Your task to perform on an android device: turn vacation reply on in the gmail app Image 0: 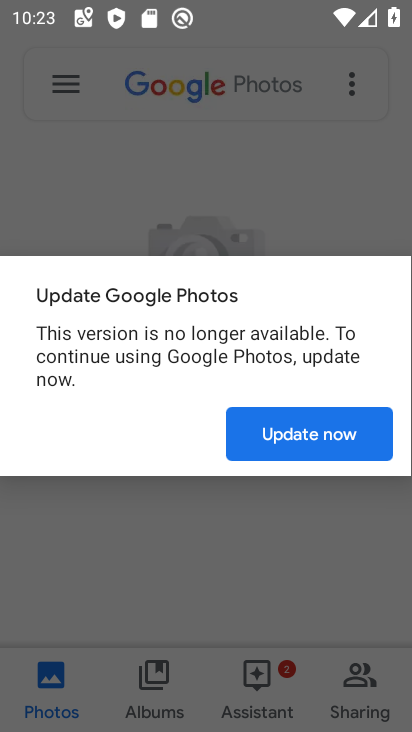
Step 0: press back button
Your task to perform on an android device: turn vacation reply on in the gmail app Image 1: 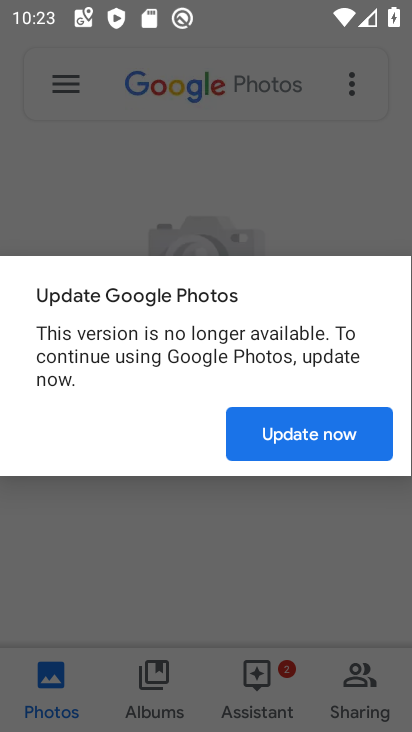
Step 1: press home button
Your task to perform on an android device: turn vacation reply on in the gmail app Image 2: 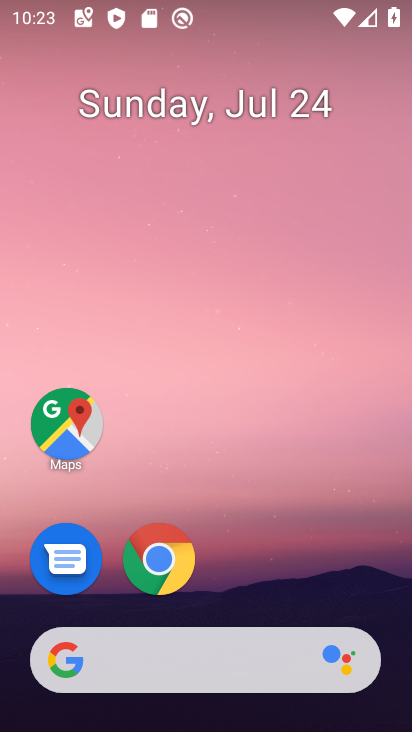
Step 2: drag from (252, 582) to (351, 4)
Your task to perform on an android device: turn vacation reply on in the gmail app Image 3: 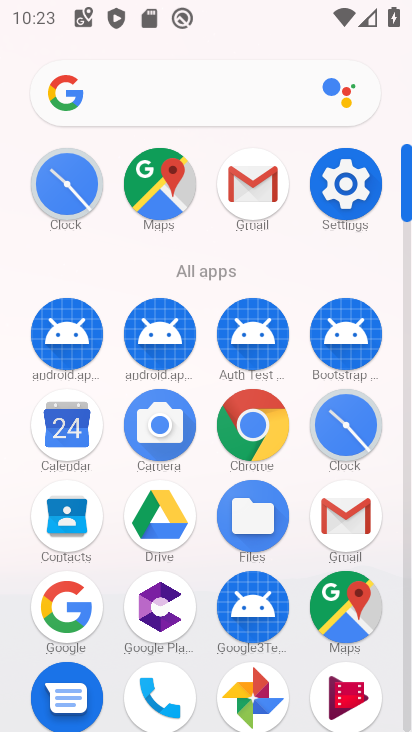
Step 3: click (250, 192)
Your task to perform on an android device: turn vacation reply on in the gmail app Image 4: 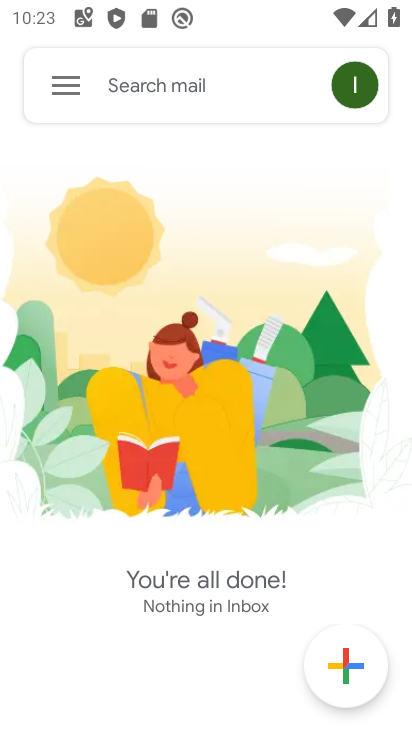
Step 4: click (75, 88)
Your task to perform on an android device: turn vacation reply on in the gmail app Image 5: 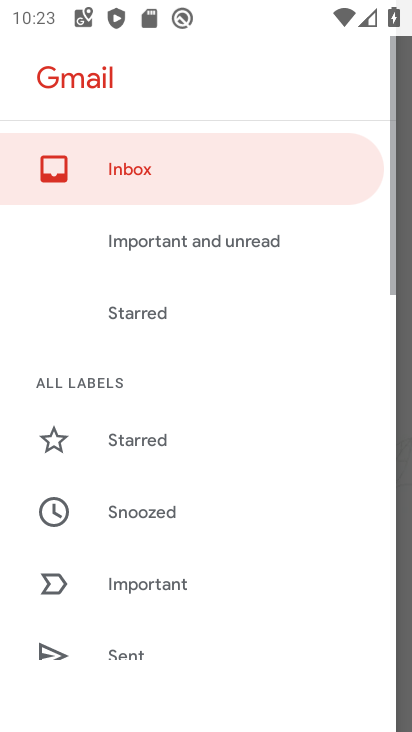
Step 5: drag from (172, 644) to (291, 39)
Your task to perform on an android device: turn vacation reply on in the gmail app Image 6: 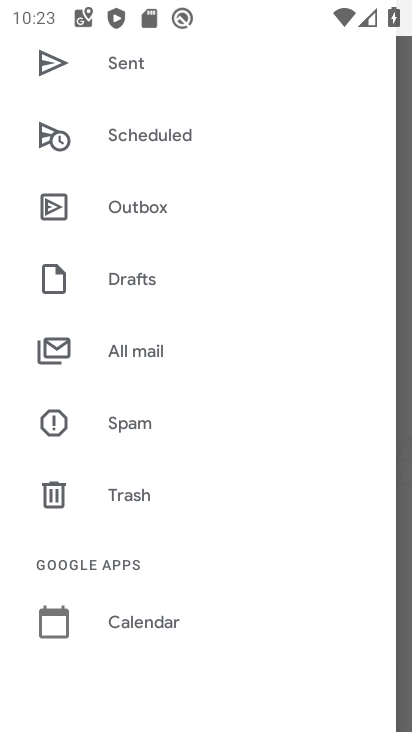
Step 6: drag from (229, 582) to (326, 82)
Your task to perform on an android device: turn vacation reply on in the gmail app Image 7: 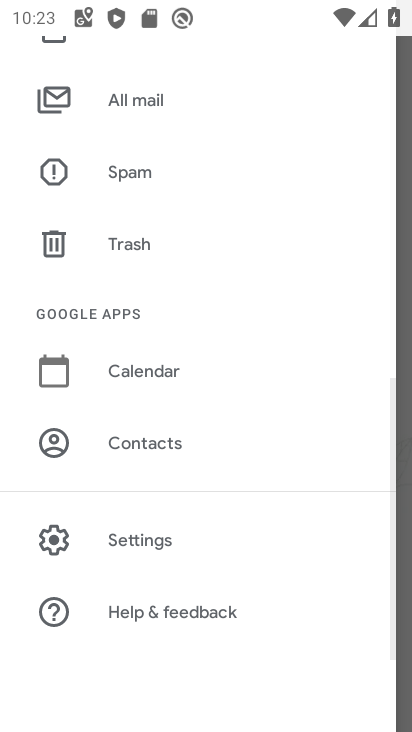
Step 7: click (129, 541)
Your task to perform on an android device: turn vacation reply on in the gmail app Image 8: 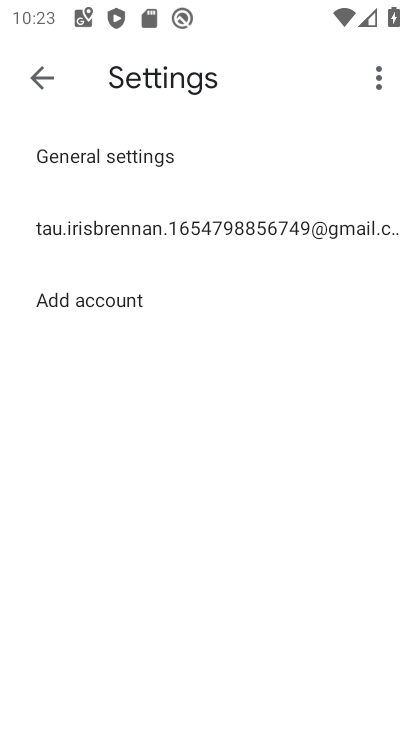
Step 8: click (218, 228)
Your task to perform on an android device: turn vacation reply on in the gmail app Image 9: 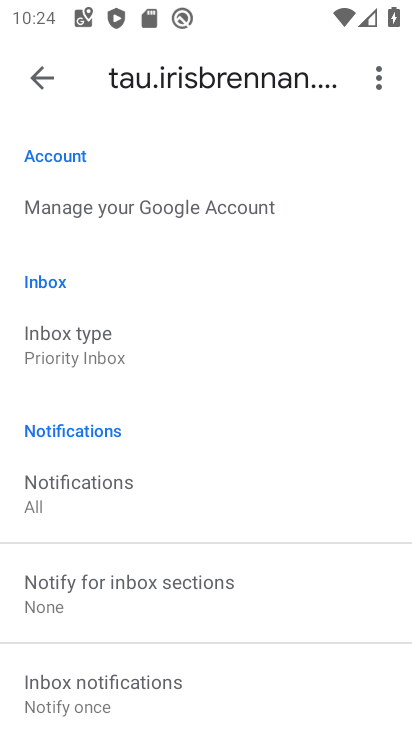
Step 9: drag from (98, 661) to (224, 136)
Your task to perform on an android device: turn vacation reply on in the gmail app Image 10: 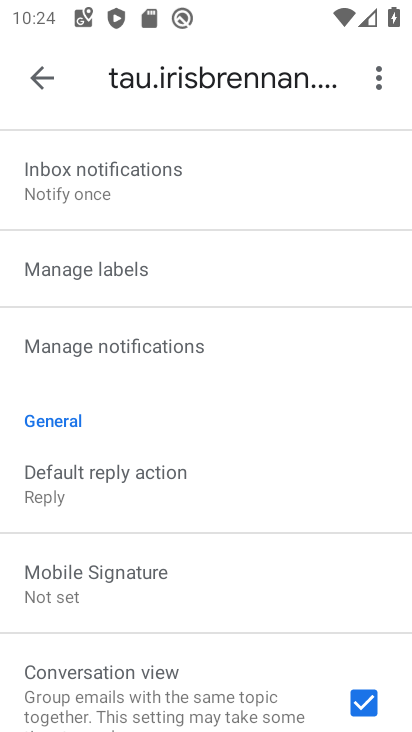
Step 10: drag from (171, 643) to (285, 188)
Your task to perform on an android device: turn vacation reply on in the gmail app Image 11: 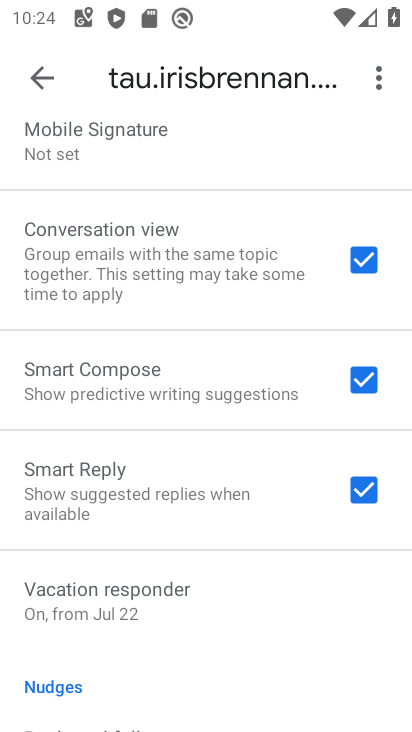
Step 11: click (99, 610)
Your task to perform on an android device: turn vacation reply on in the gmail app Image 12: 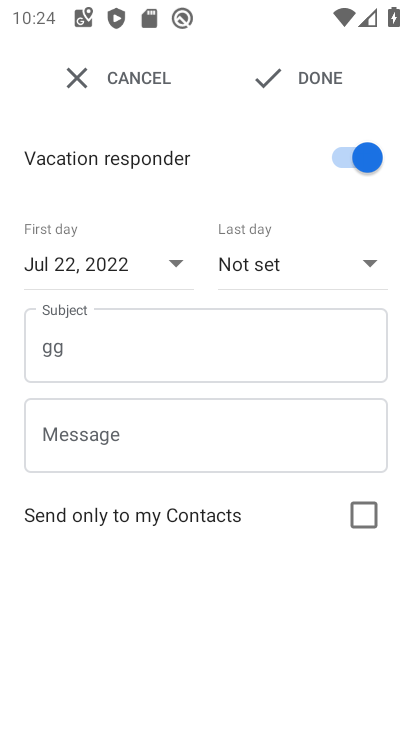
Step 12: task complete